Your task to perform on an android device: Go to display settings Image 0: 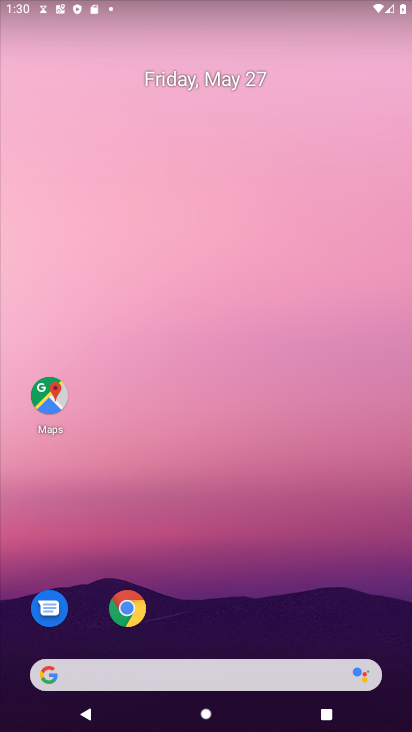
Step 0: drag from (200, 634) to (291, 42)
Your task to perform on an android device: Go to display settings Image 1: 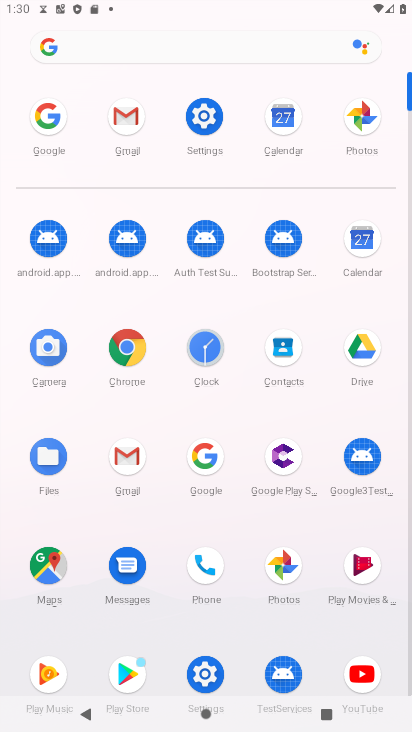
Step 1: click (208, 113)
Your task to perform on an android device: Go to display settings Image 2: 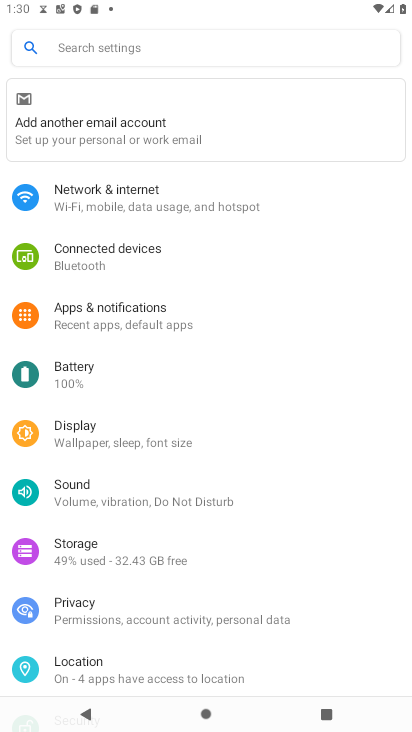
Step 2: click (117, 440)
Your task to perform on an android device: Go to display settings Image 3: 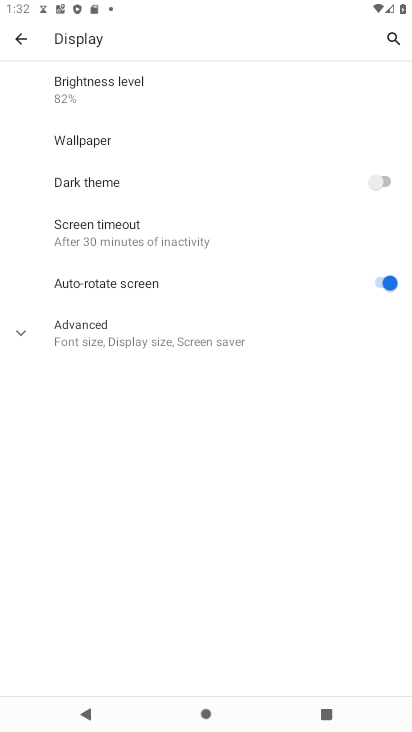
Step 3: task complete